Your task to perform on an android device: Show me the alarms in the clock app Image 0: 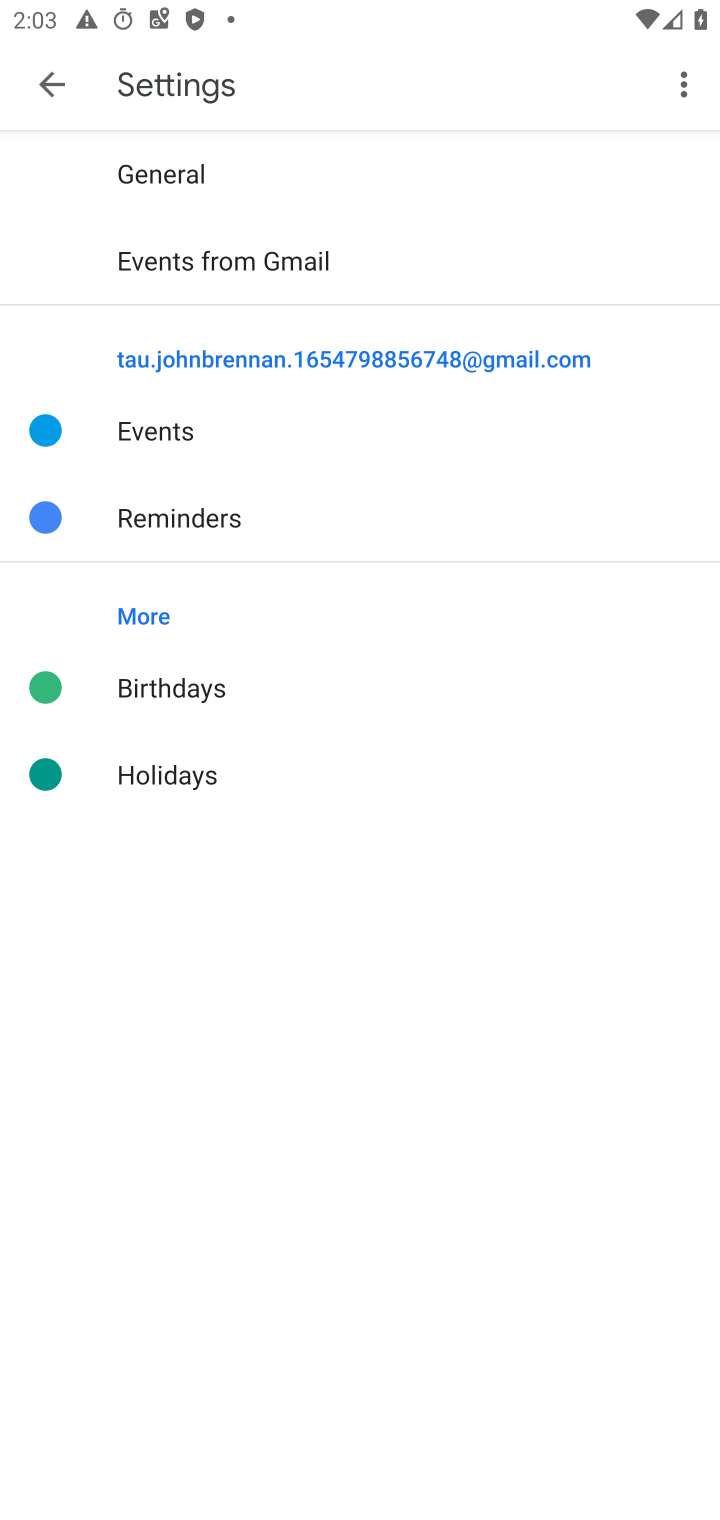
Step 0: press home button
Your task to perform on an android device: Show me the alarms in the clock app Image 1: 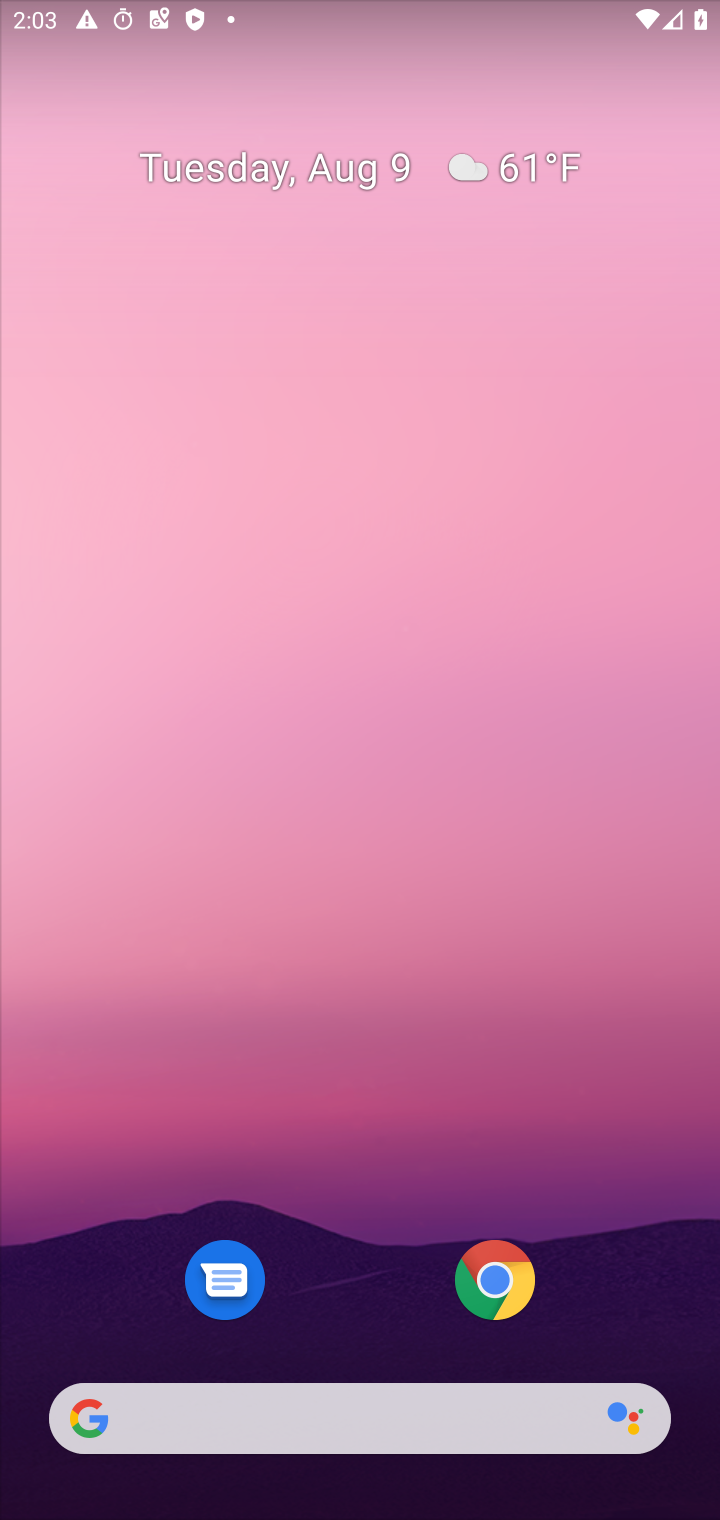
Step 1: drag from (436, 1380) to (542, 444)
Your task to perform on an android device: Show me the alarms in the clock app Image 2: 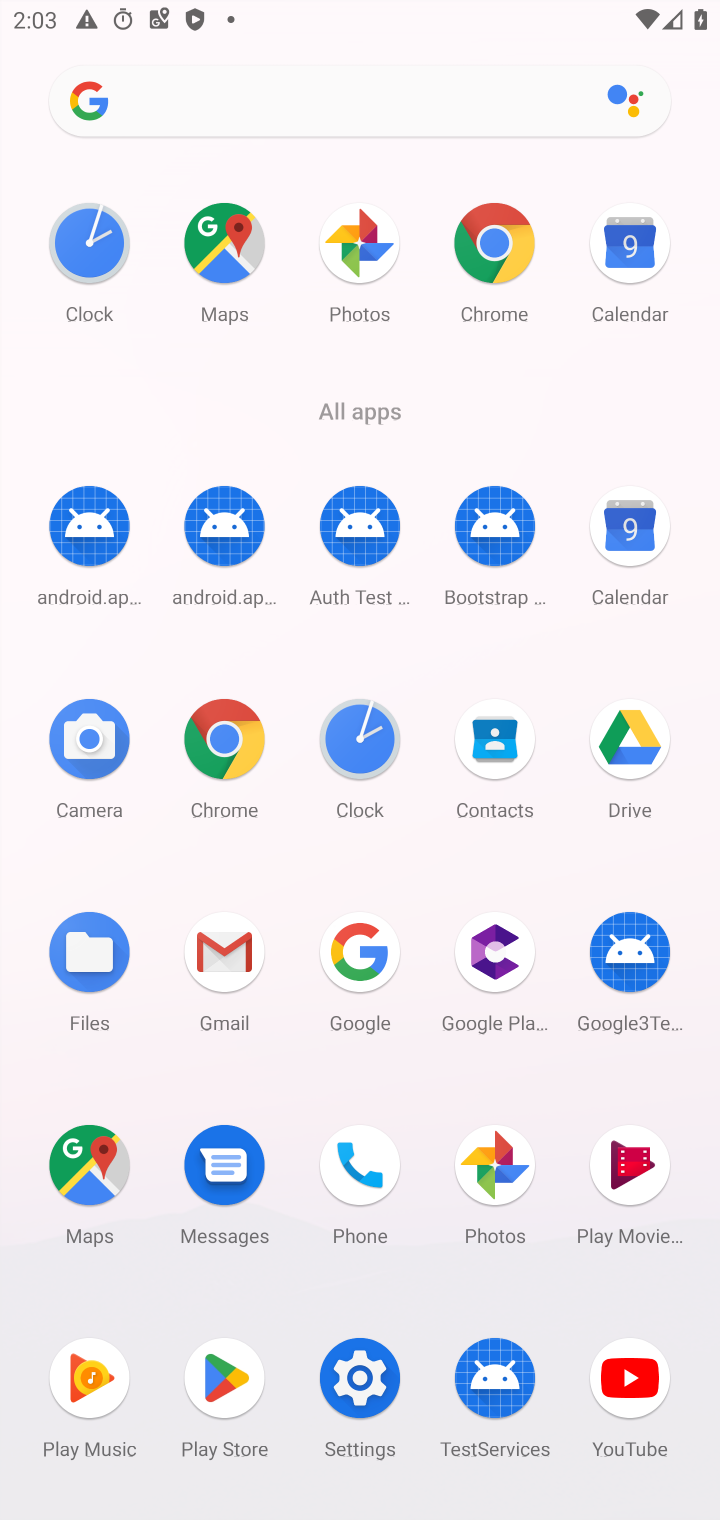
Step 2: click (362, 745)
Your task to perform on an android device: Show me the alarms in the clock app Image 3: 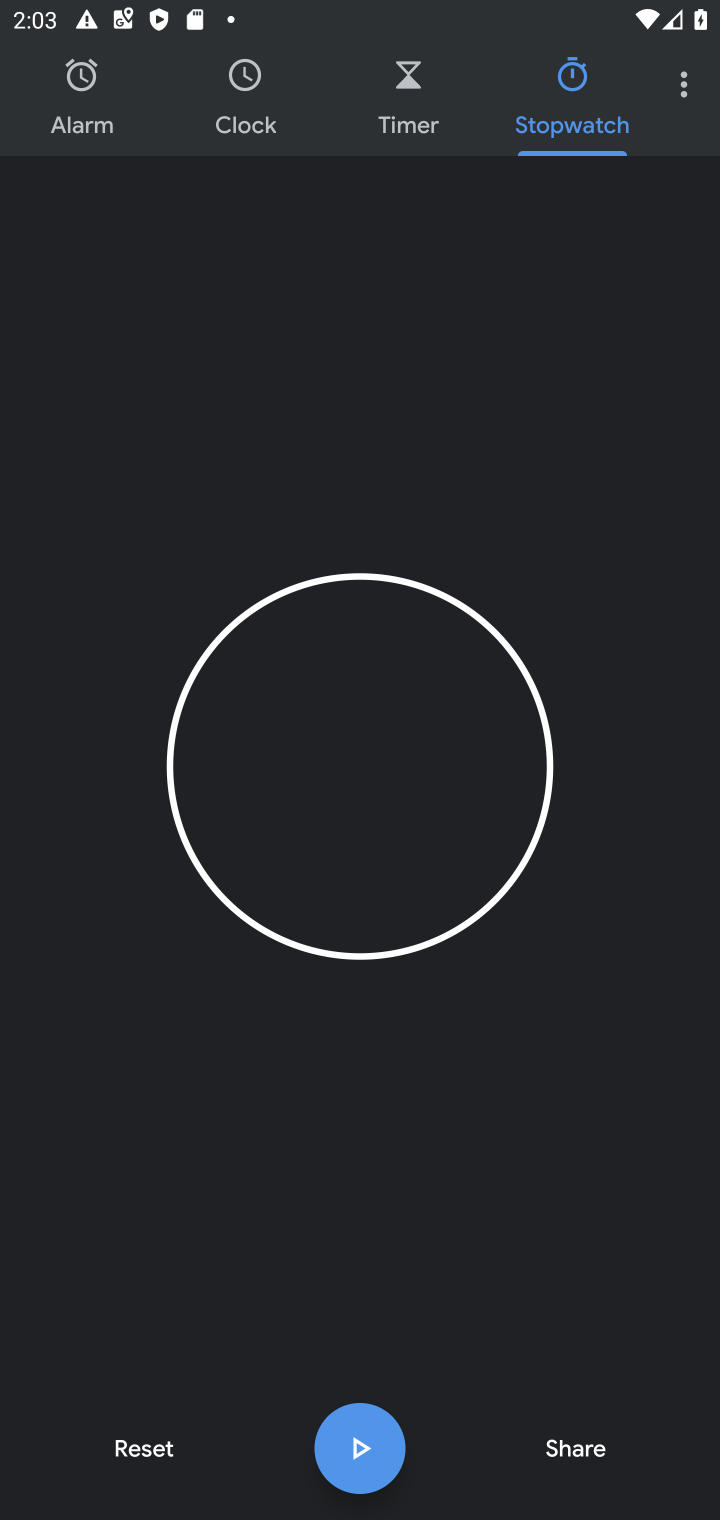
Step 3: click (86, 127)
Your task to perform on an android device: Show me the alarms in the clock app Image 4: 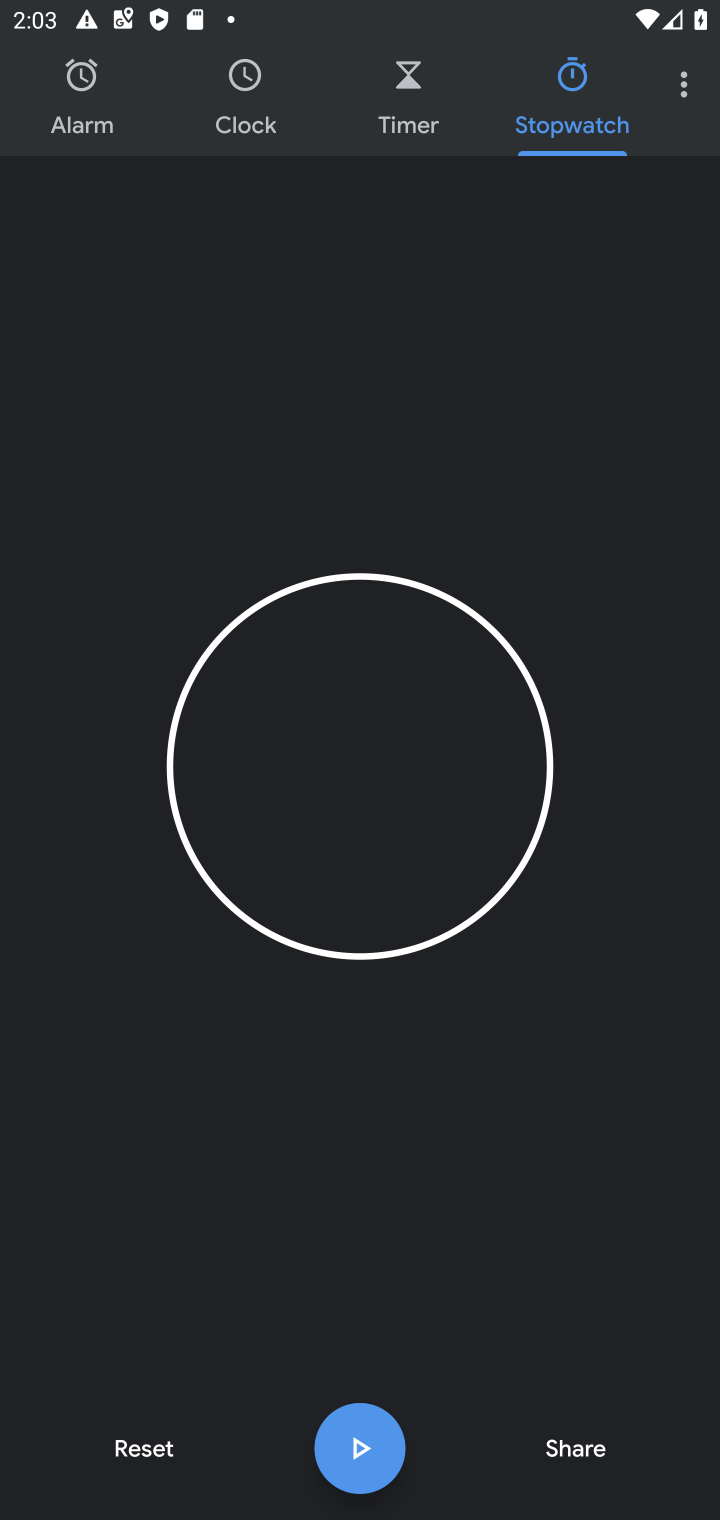
Step 4: click (90, 113)
Your task to perform on an android device: Show me the alarms in the clock app Image 5: 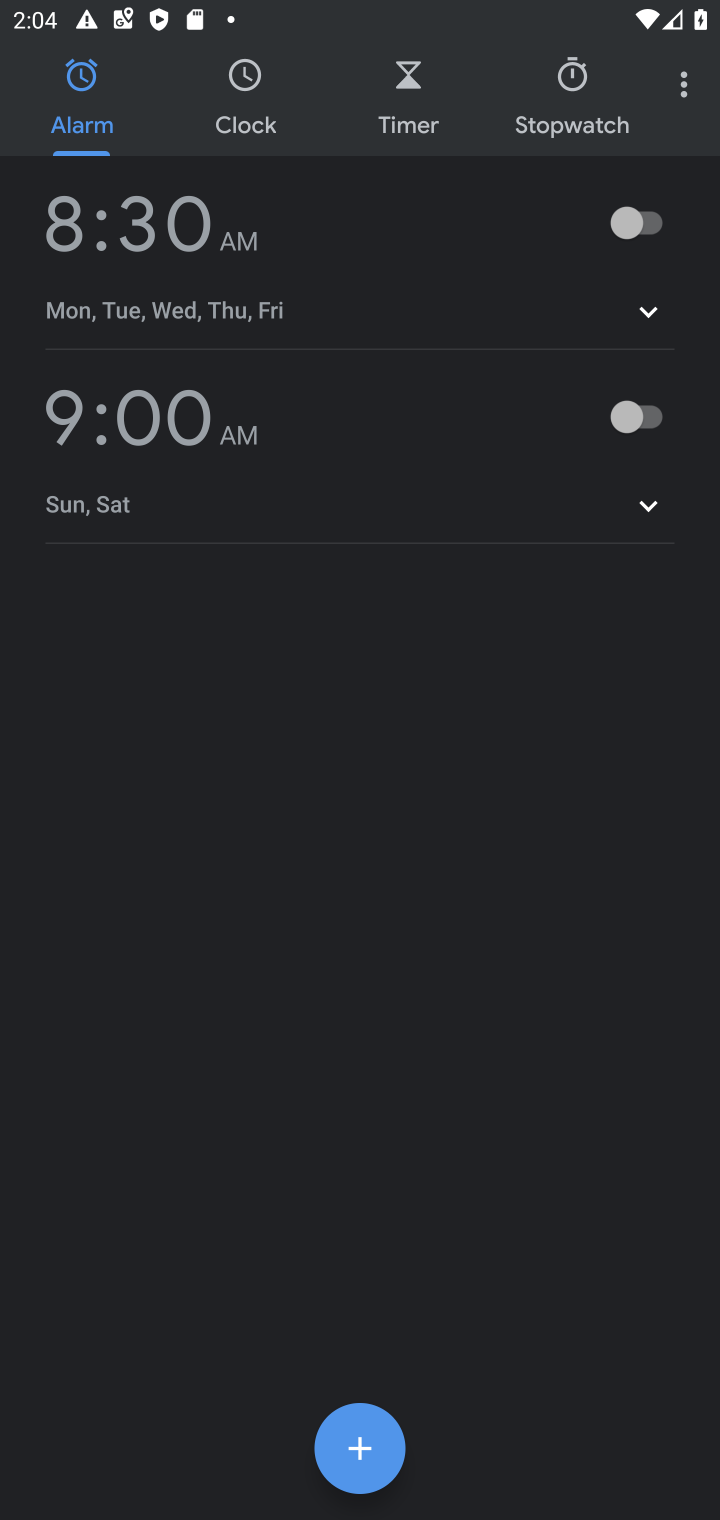
Step 5: task complete